Your task to perform on an android device: turn smart compose on in the gmail app Image 0: 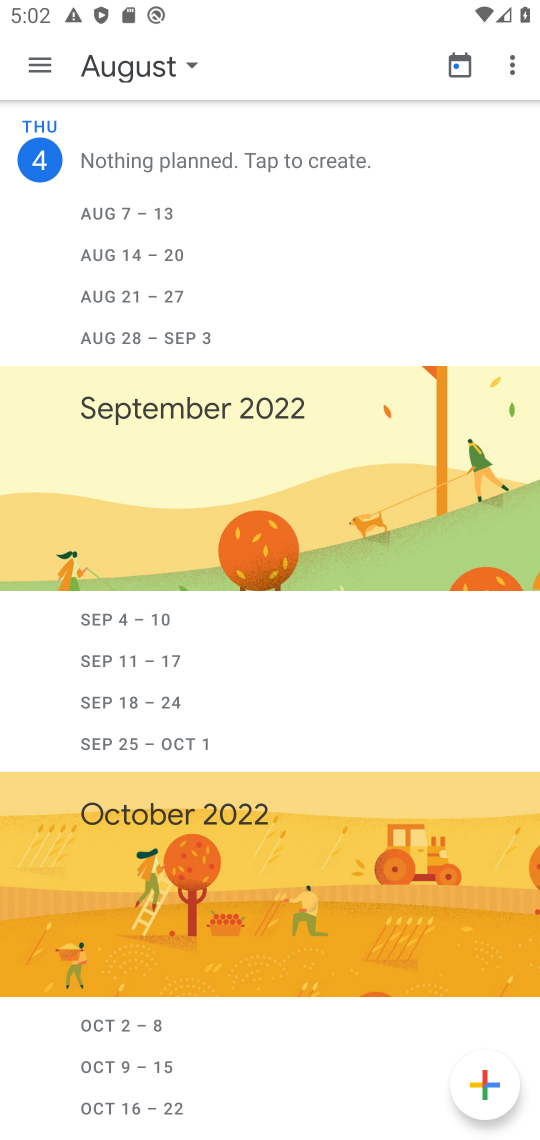
Step 0: press home button
Your task to perform on an android device: turn smart compose on in the gmail app Image 1: 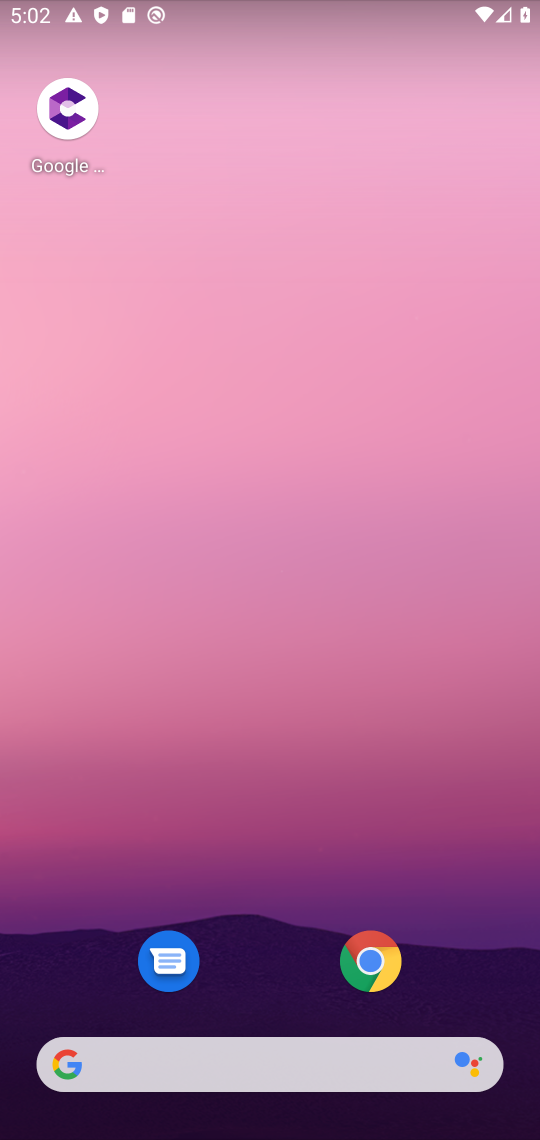
Step 1: drag from (467, 898) to (391, 281)
Your task to perform on an android device: turn smart compose on in the gmail app Image 2: 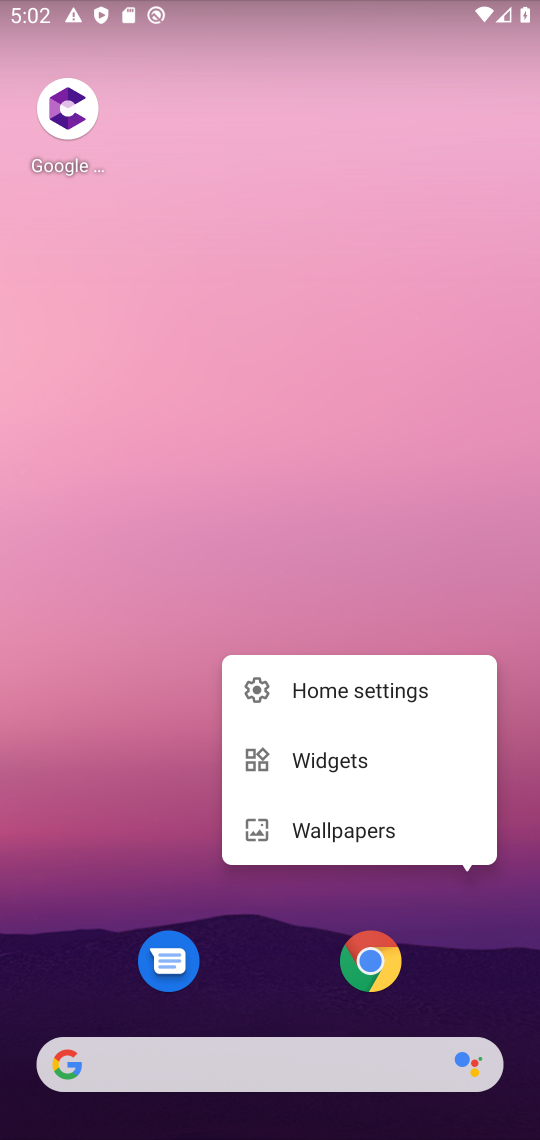
Step 2: click (477, 892)
Your task to perform on an android device: turn smart compose on in the gmail app Image 3: 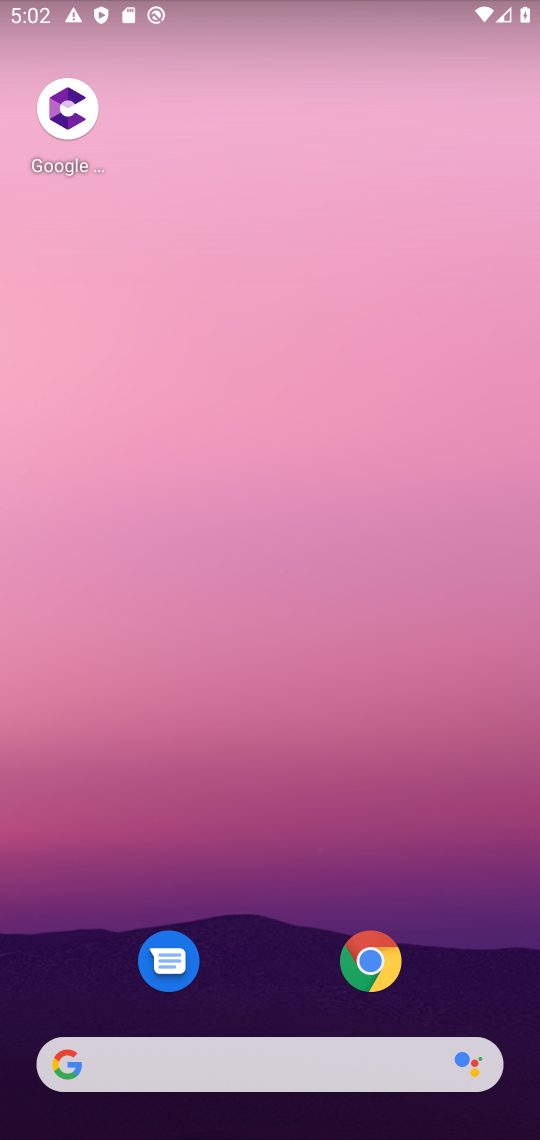
Step 3: drag from (237, 948) to (332, 147)
Your task to perform on an android device: turn smart compose on in the gmail app Image 4: 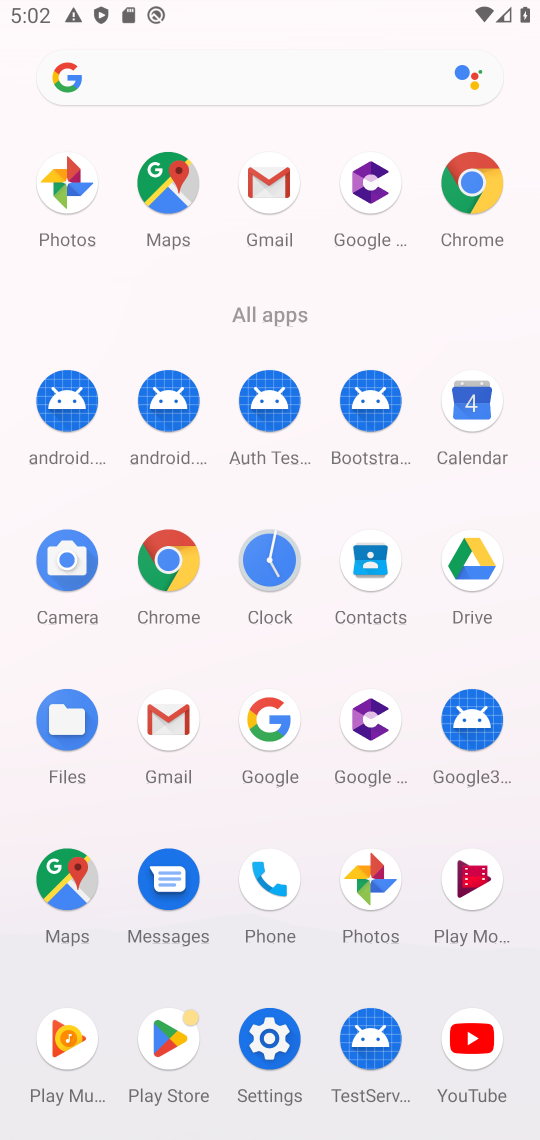
Step 4: click (261, 189)
Your task to perform on an android device: turn smart compose on in the gmail app Image 5: 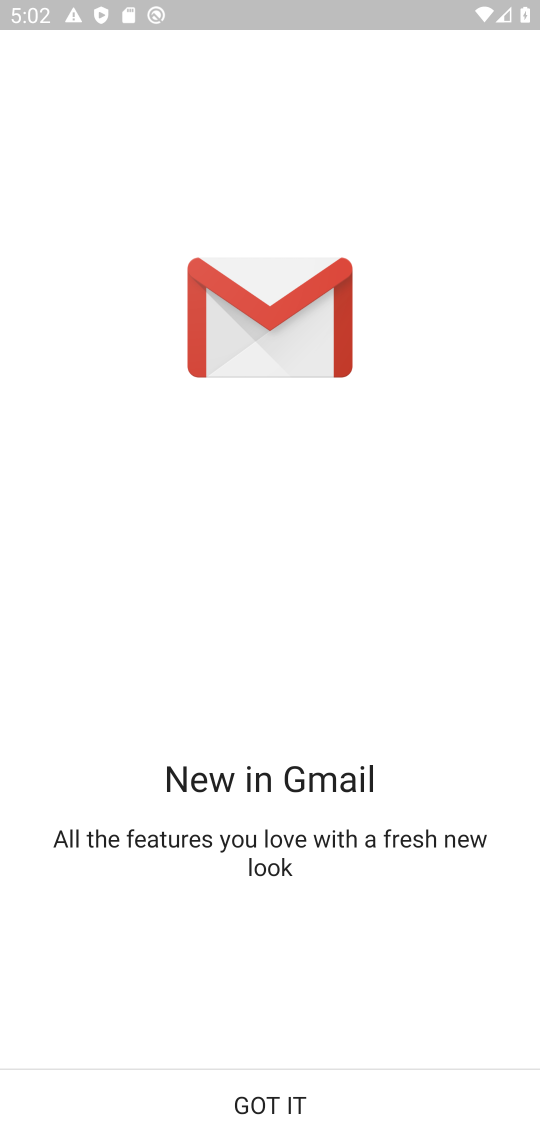
Step 5: click (367, 1091)
Your task to perform on an android device: turn smart compose on in the gmail app Image 6: 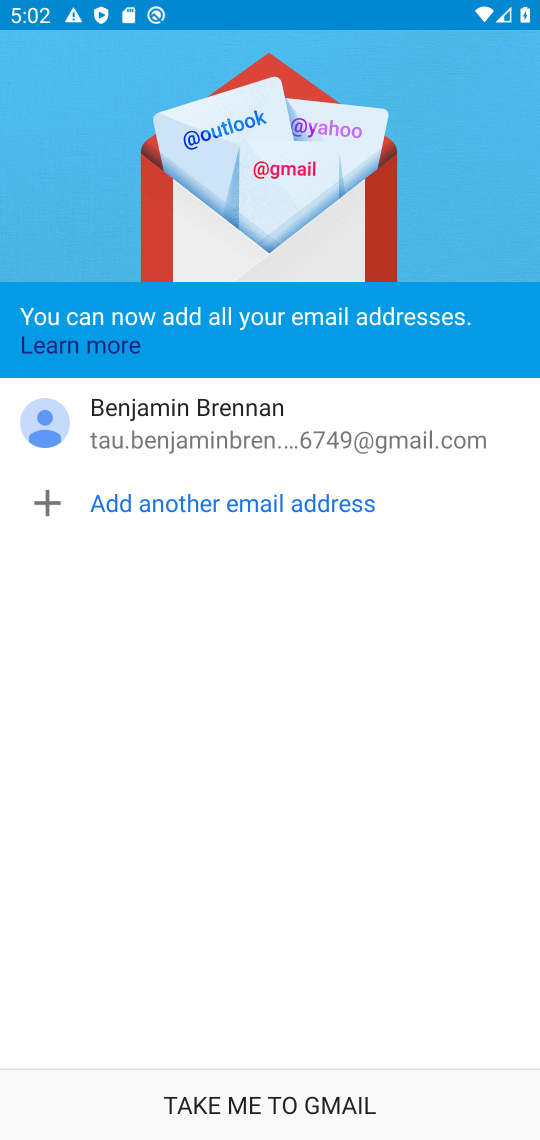
Step 6: click (326, 1095)
Your task to perform on an android device: turn smart compose on in the gmail app Image 7: 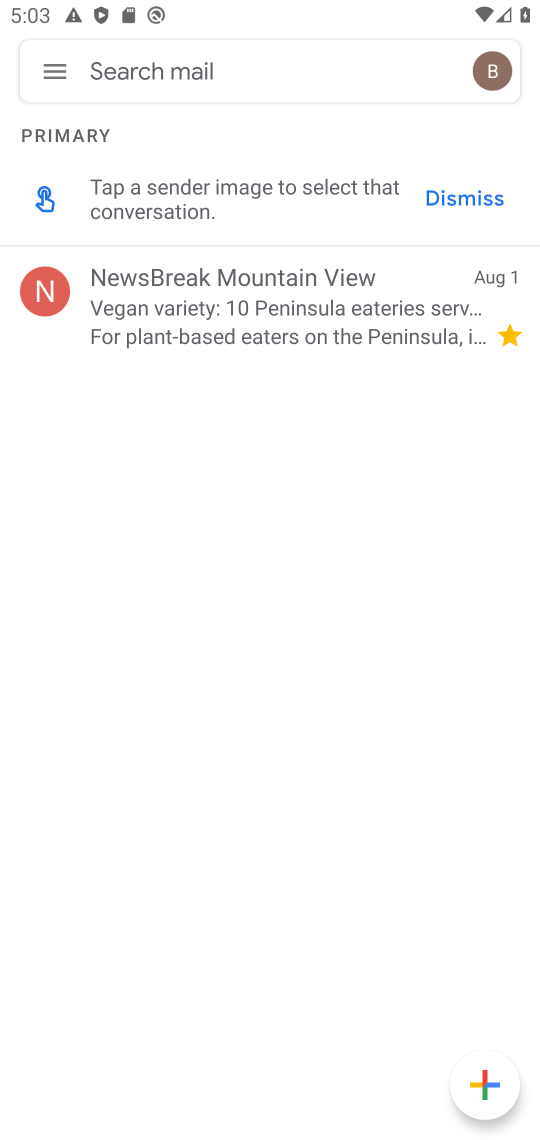
Step 7: click (53, 77)
Your task to perform on an android device: turn smart compose on in the gmail app Image 8: 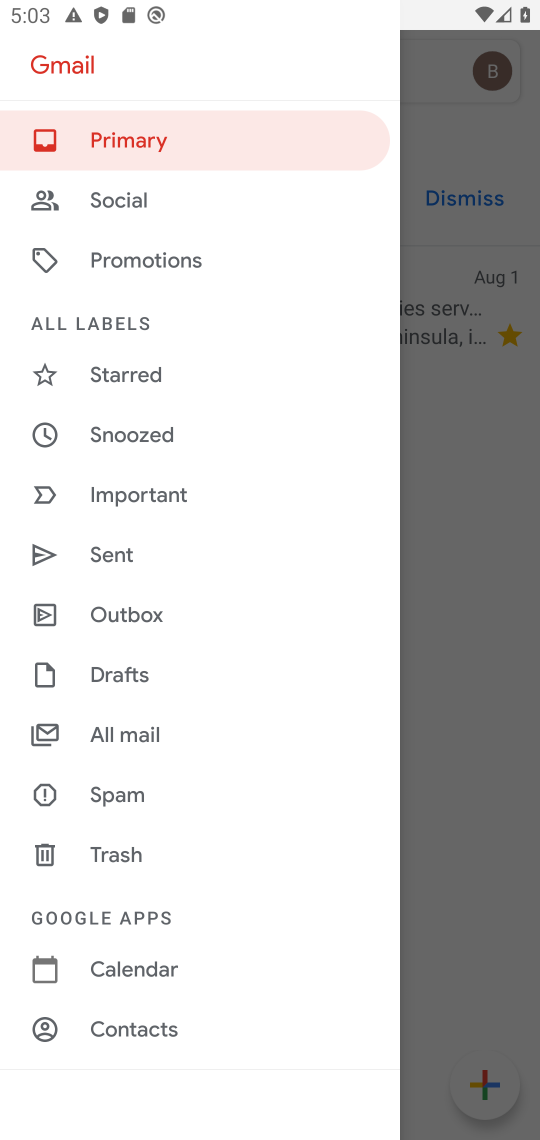
Step 8: drag from (227, 889) to (191, 568)
Your task to perform on an android device: turn smart compose on in the gmail app Image 9: 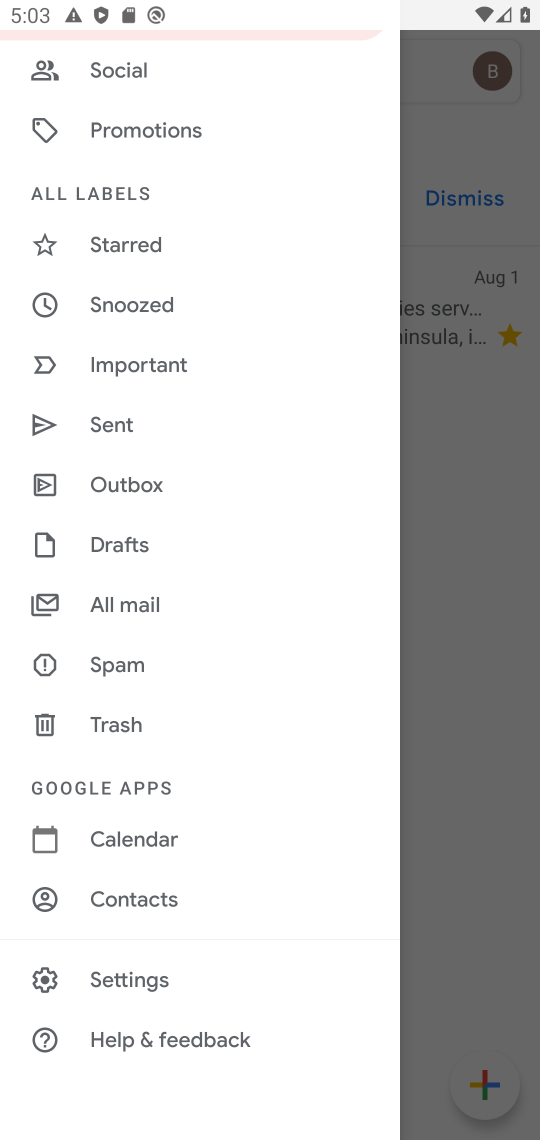
Step 9: click (120, 973)
Your task to perform on an android device: turn smart compose on in the gmail app Image 10: 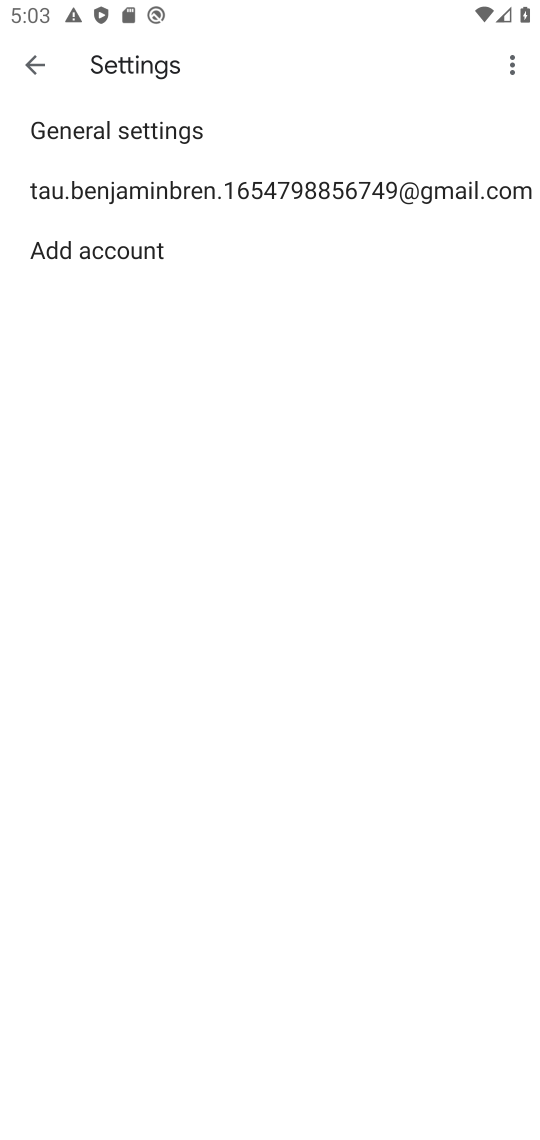
Step 10: click (131, 175)
Your task to perform on an android device: turn smart compose on in the gmail app Image 11: 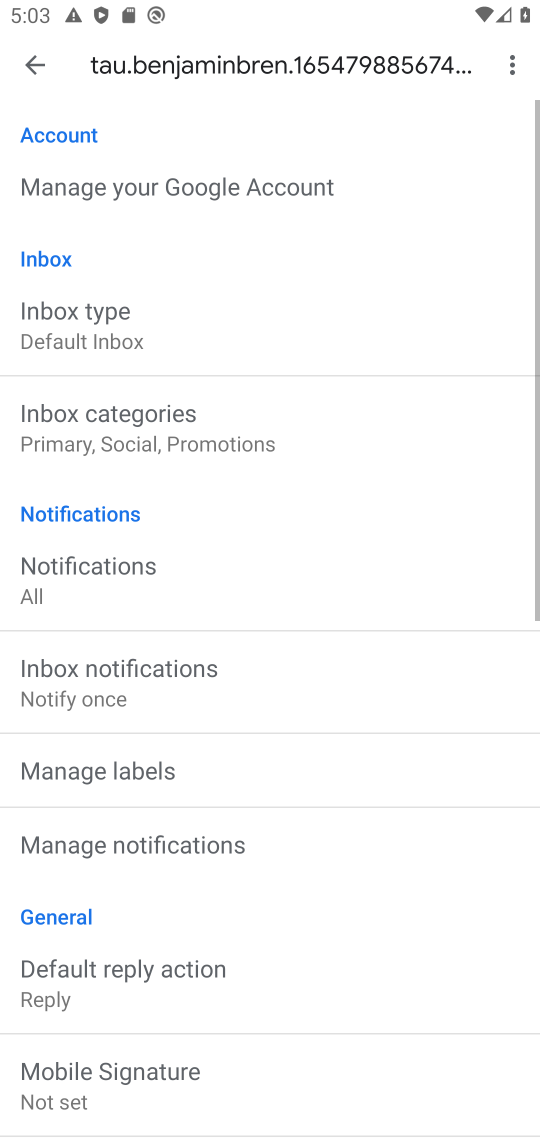
Step 11: task complete